Your task to perform on an android device: turn notification dots off Image 0: 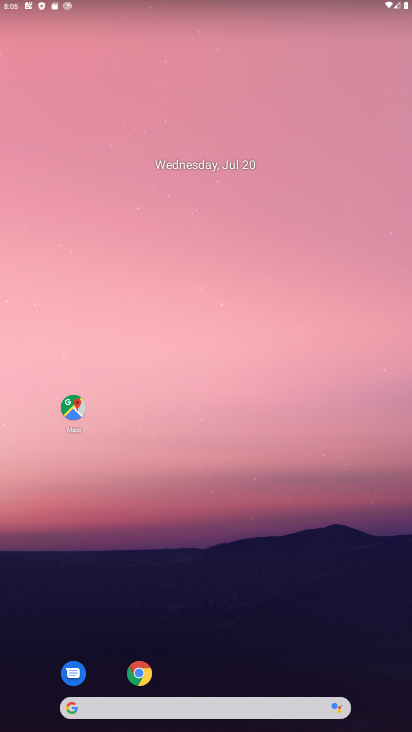
Step 0: click (407, 210)
Your task to perform on an android device: turn notification dots off Image 1: 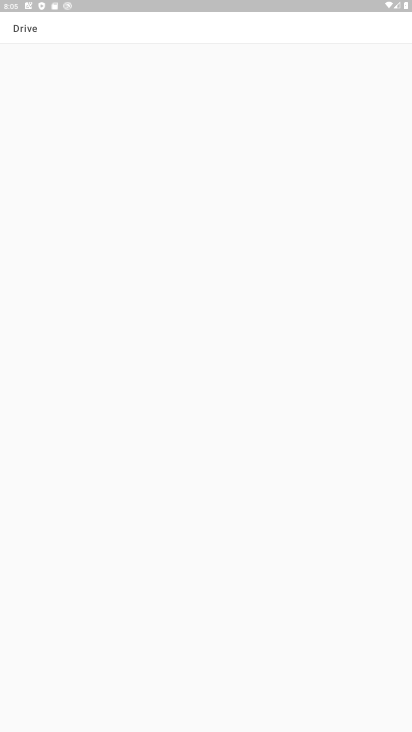
Step 1: press home button
Your task to perform on an android device: turn notification dots off Image 2: 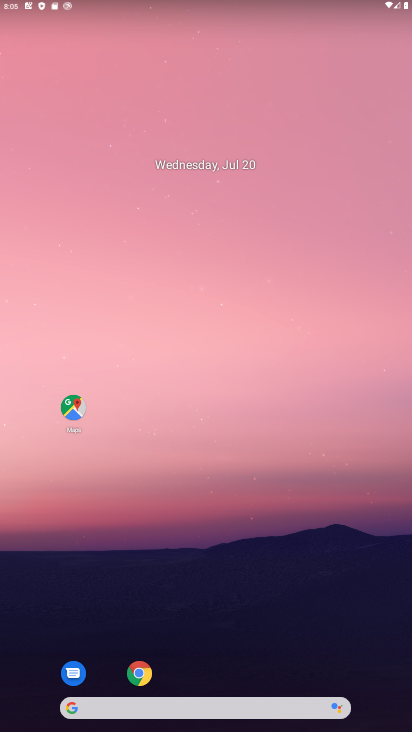
Step 2: drag from (183, 585) to (214, 49)
Your task to perform on an android device: turn notification dots off Image 3: 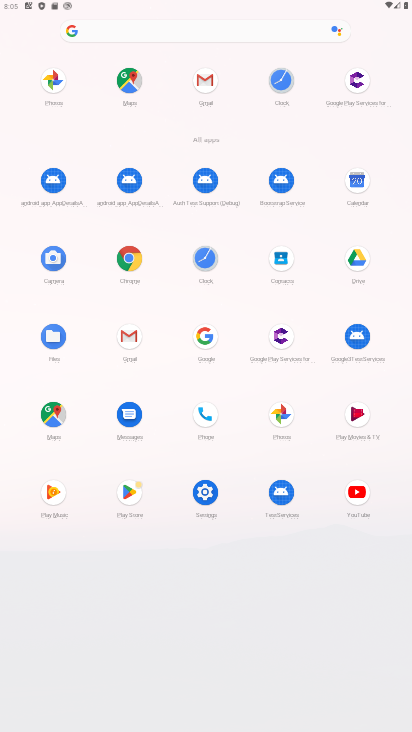
Step 3: click (200, 488)
Your task to perform on an android device: turn notification dots off Image 4: 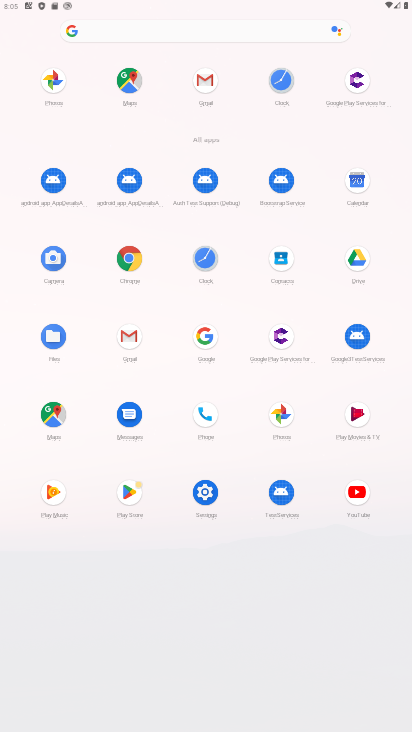
Step 4: click (200, 488)
Your task to perform on an android device: turn notification dots off Image 5: 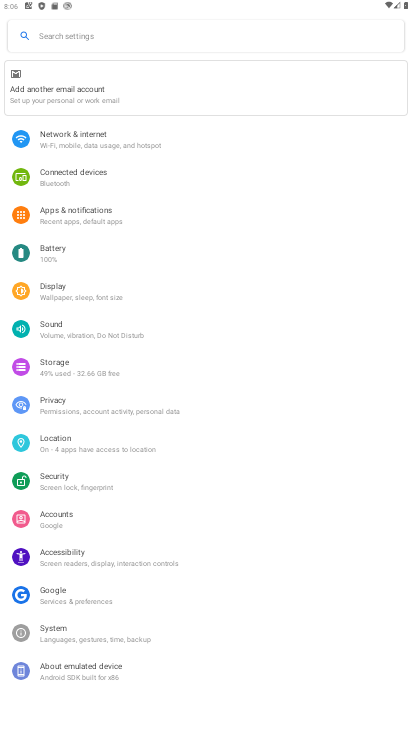
Step 5: click (87, 213)
Your task to perform on an android device: turn notification dots off Image 6: 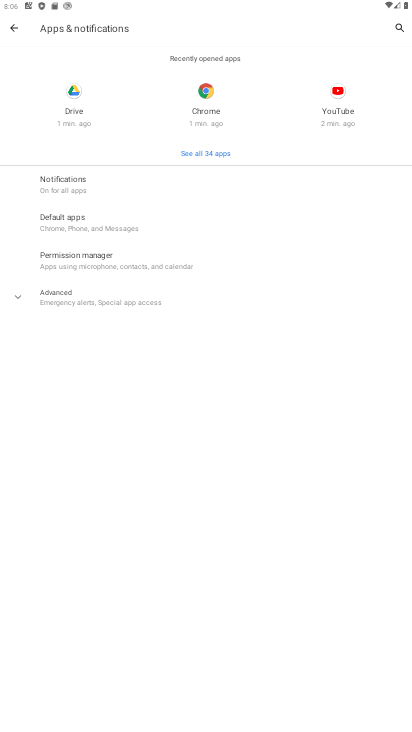
Step 6: click (84, 178)
Your task to perform on an android device: turn notification dots off Image 7: 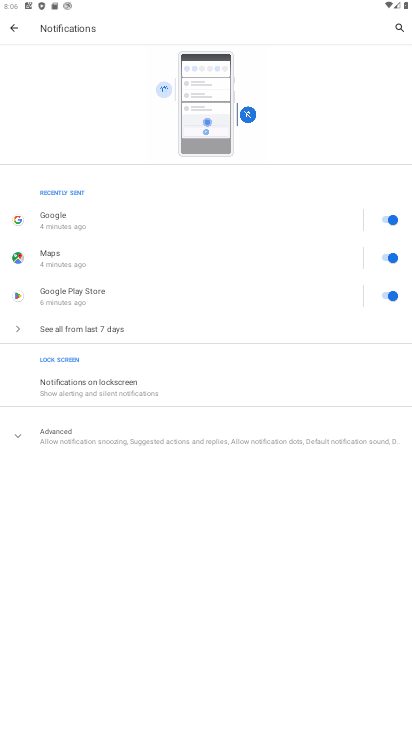
Step 7: click (58, 433)
Your task to perform on an android device: turn notification dots off Image 8: 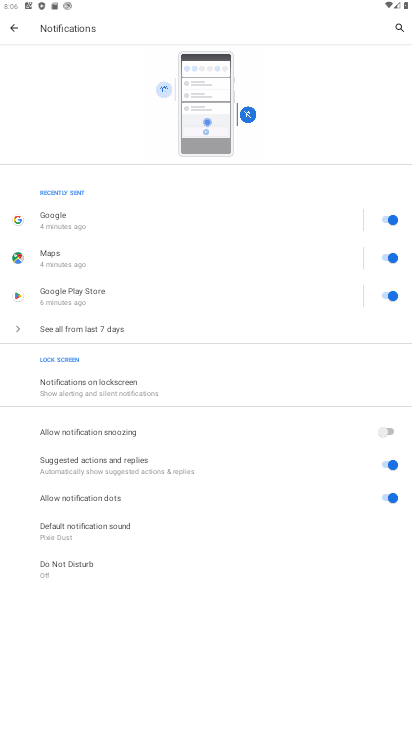
Step 8: drag from (337, 251) to (297, 722)
Your task to perform on an android device: turn notification dots off Image 9: 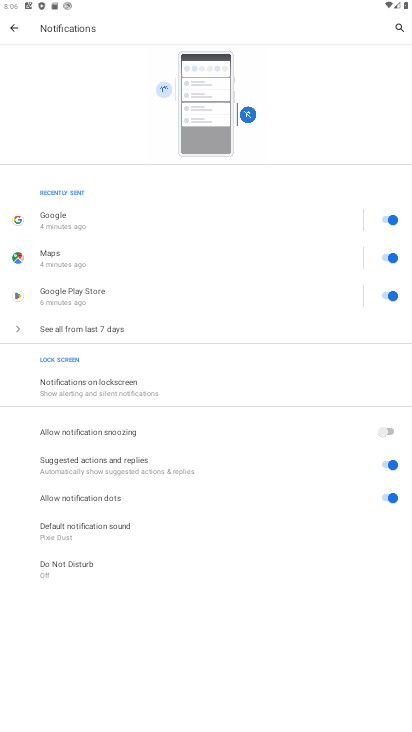
Step 9: drag from (146, 604) to (261, 168)
Your task to perform on an android device: turn notification dots off Image 10: 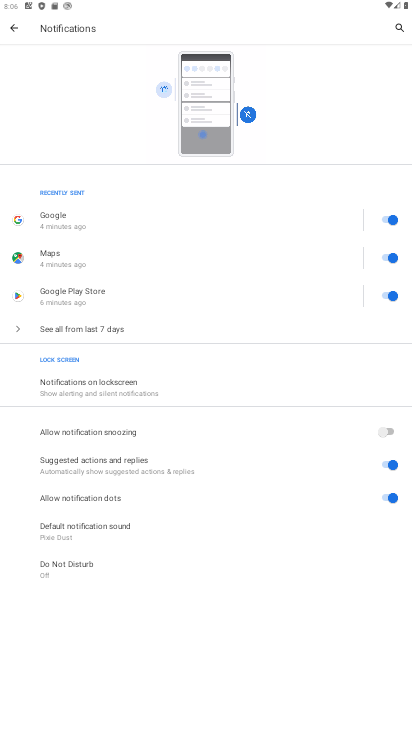
Step 10: click (385, 494)
Your task to perform on an android device: turn notification dots off Image 11: 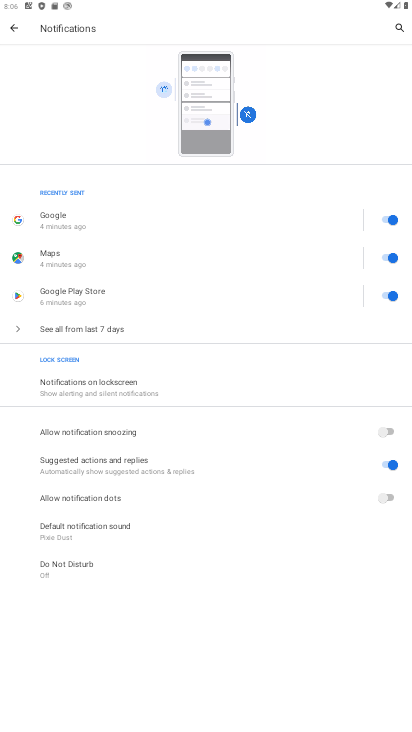
Step 11: task complete